Your task to perform on an android device: Open Google Chrome Image 0: 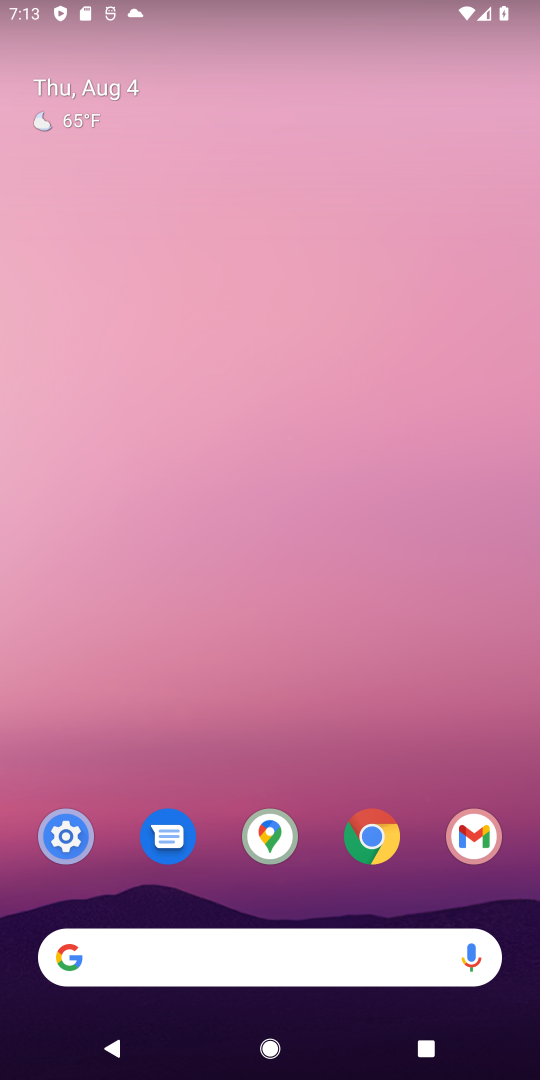
Step 0: click (363, 834)
Your task to perform on an android device: Open Google Chrome Image 1: 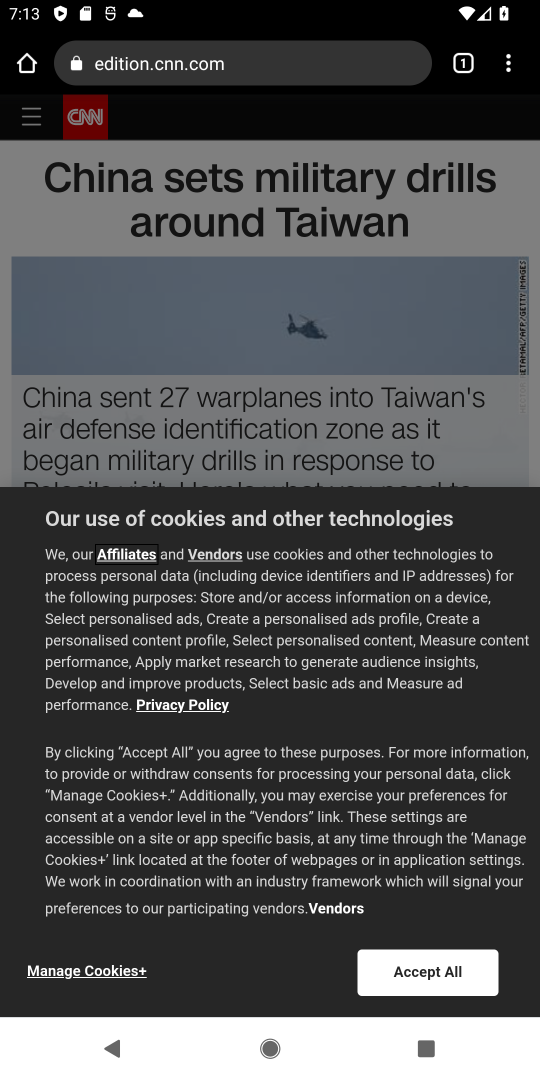
Step 1: task complete